Your task to perform on an android device: allow cookies in the chrome app Image 0: 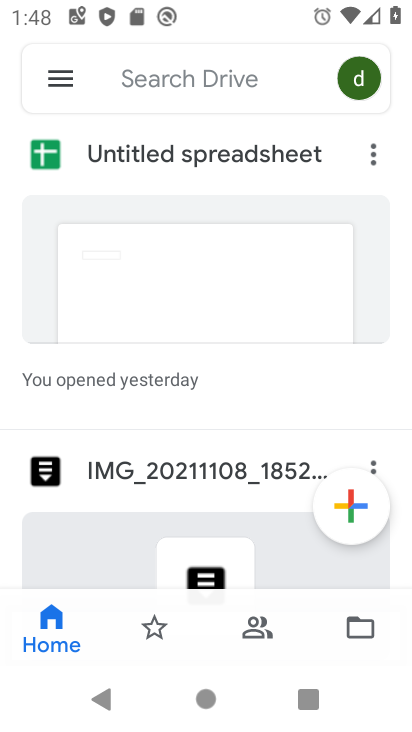
Step 0: press home button
Your task to perform on an android device: allow cookies in the chrome app Image 1: 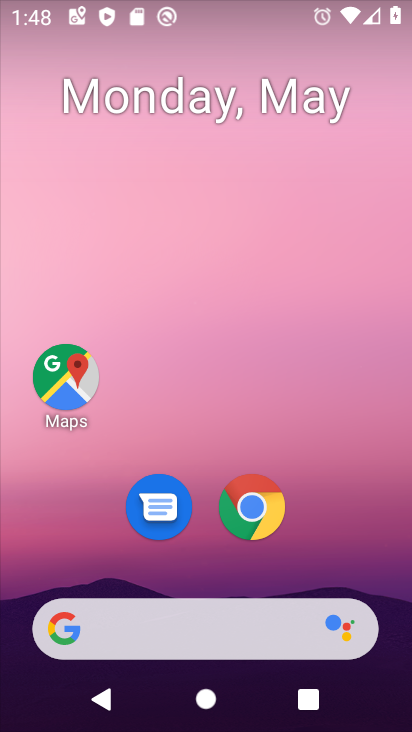
Step 1: click (254, 506)
Your task to perform on an android device: allow cookies in the chrome app Image 2: 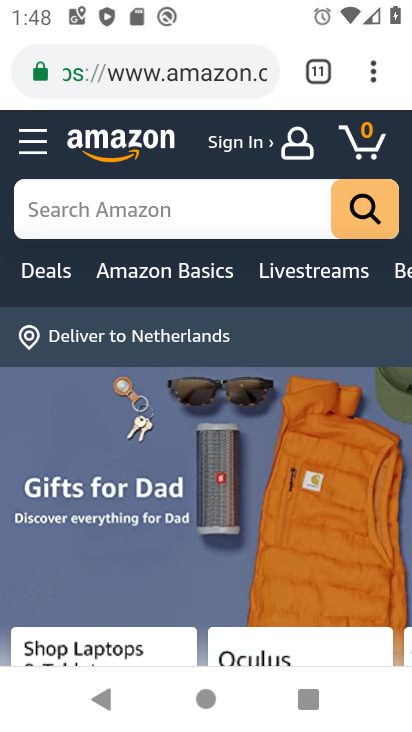
Step 2: click (371, 79)
Your task to perform on an android device: allow cookies in the chrome app Image 3: 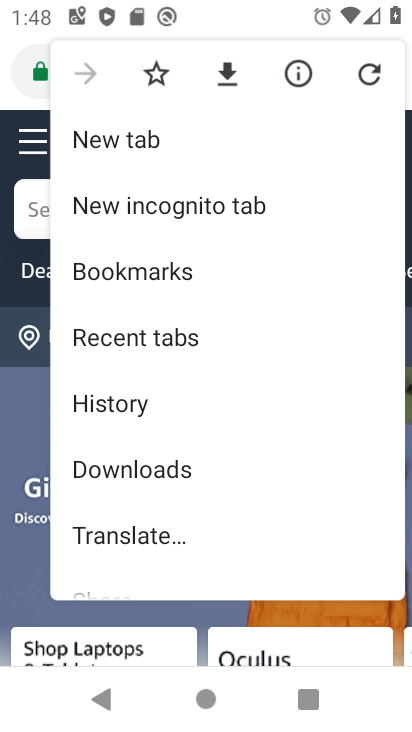
Step 3: drag from (148, 541) to (140, 189)
Your task to perform on an android device: allow cookies in the chrome app Image 4: 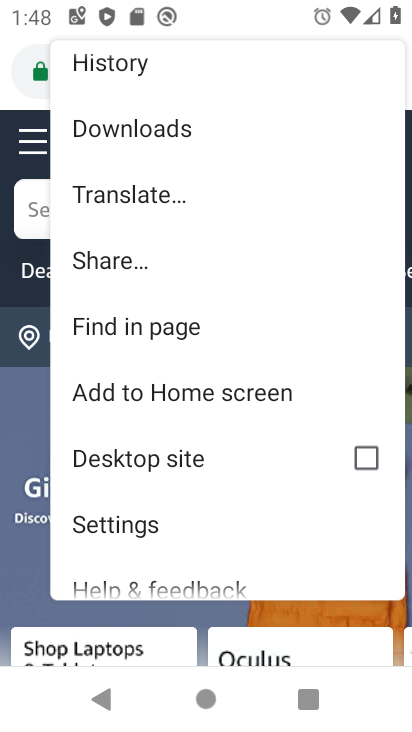
Step 4: drag from (148, 548) to (148, 152)
Your task to perform on an android device: allow cookies in the chrome app Image 5: 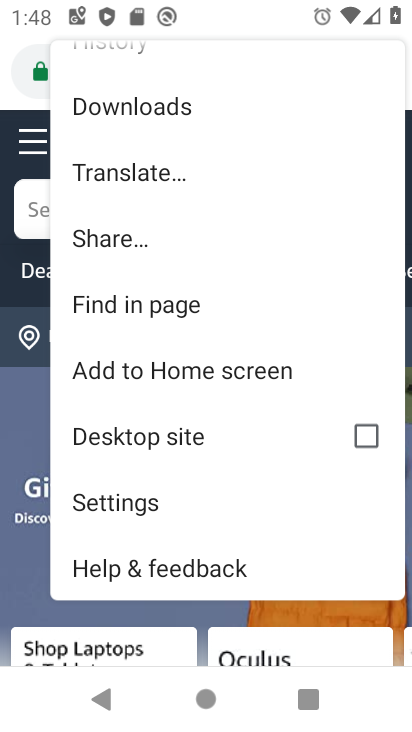
Step 5: click (104, 507)
Your task to perform on an android device: allow cookies in the chrome app Image 6: 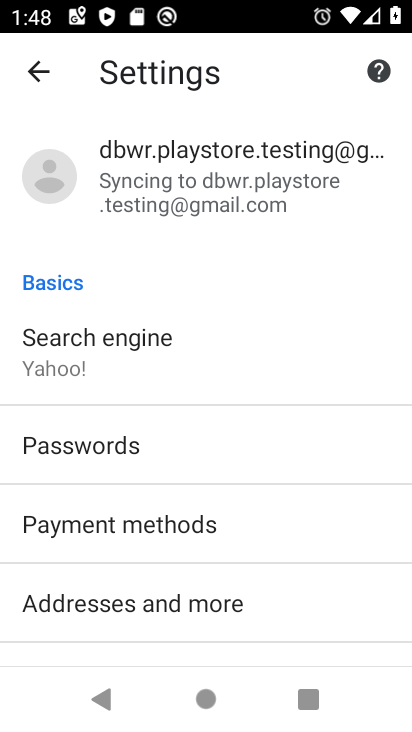
Step 6: drag from (125, 649) to (136, 138)
Your task to perform on an android device: allow cookies in the chrome app Image 7: 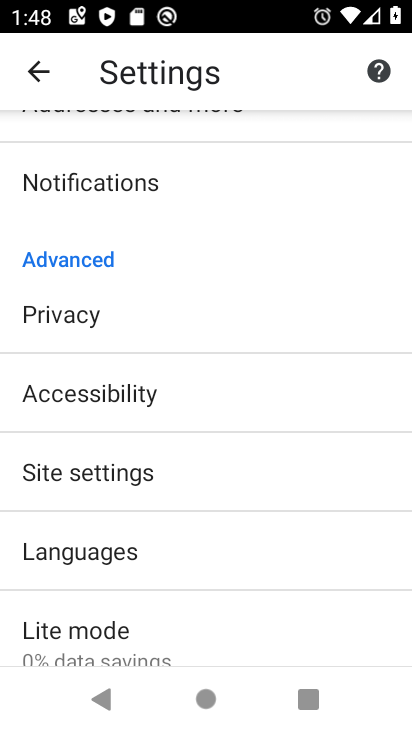
Step 7: drag from (94, 599) to (95, 402)
Your task to perform on an android device: allow cookies in the chrome app Image 8: 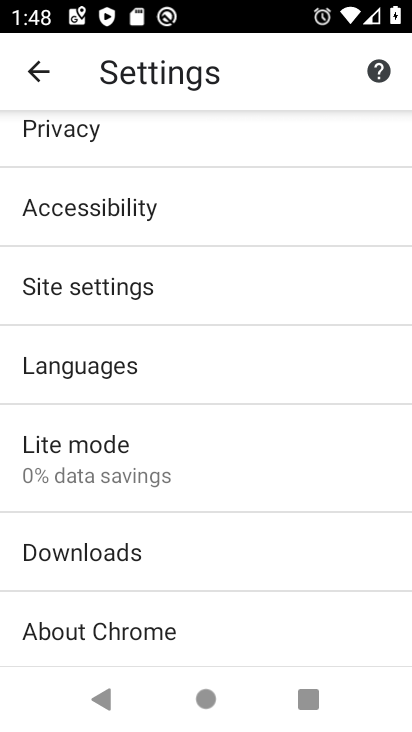
Step 8: click (109, 290)
Your task to perform on an android device: allow cookies in the chrome app Image 9: 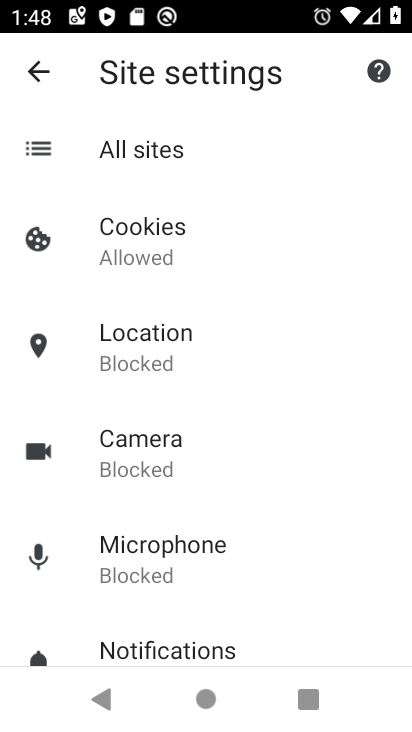
Step 9: click (124, 246)
Your task to perform on an android device: allow cookies in the chrome app Image 10: 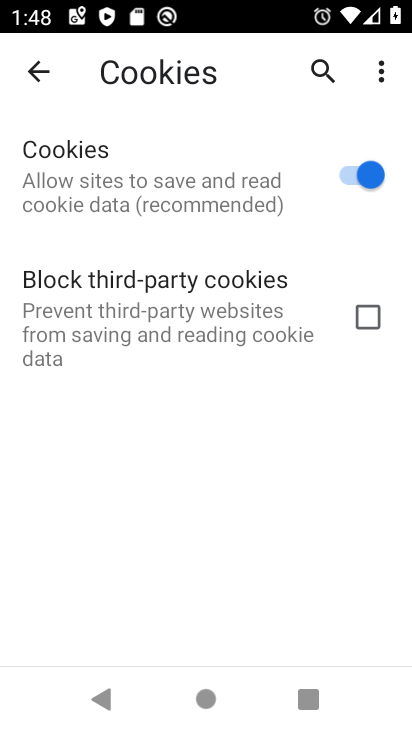
Step 10: task complete